Your task to perform on an android device: turn pop-ups off in chrome Image 0: 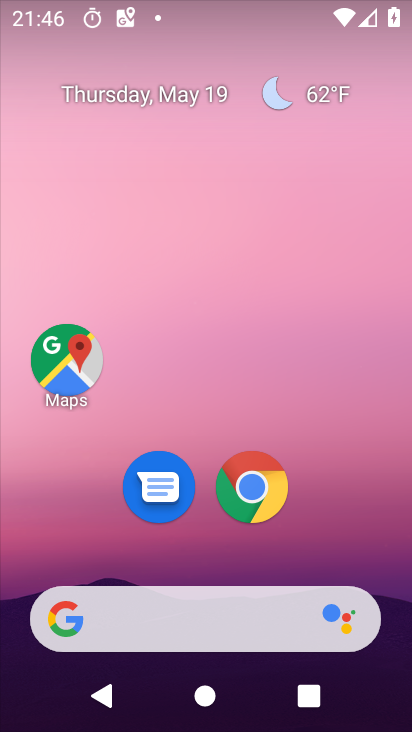
Step 0: click (259, 478)
Your task to perform on an android device: turn pop-ups off in chrome Image 1: 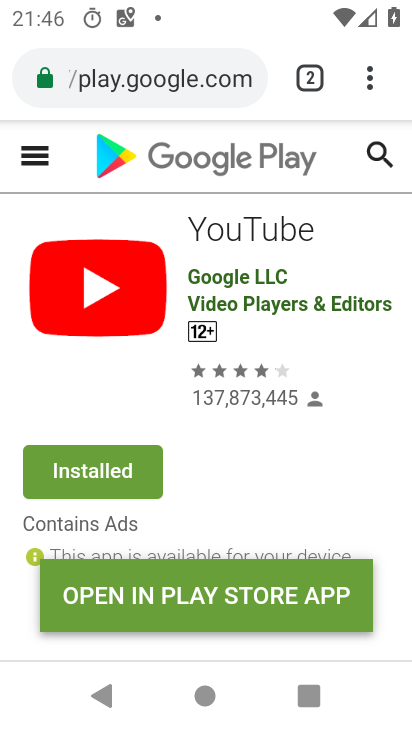
Step 1: click (377, 84)
Your task to perform on an android device: turn pop-ups off in chrome Image 2: 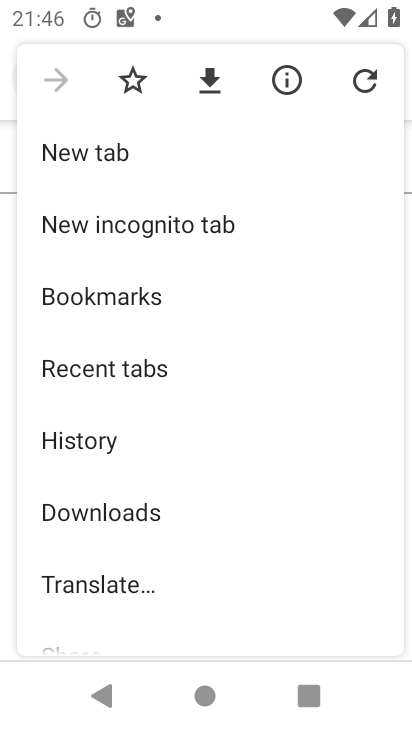
Step 2: drag from (216, 545) to (171, 335)
Your task to perform on an android device: turn pop-ups off in chrome Image 3: 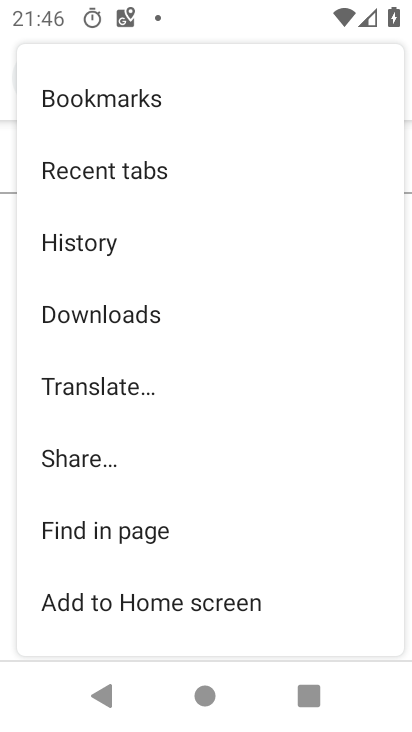
Step 3: click (171, 335)
Your task to perform on an android device: turn pop-ups off in chrome Image 4: 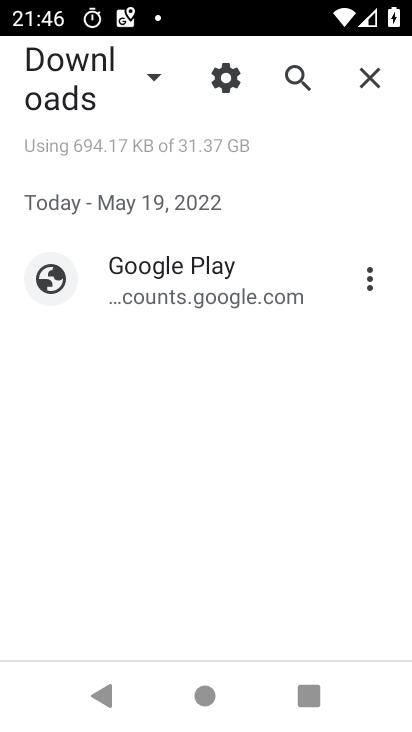
Step 4: press back button
Your task to perform on an android device: turn pop-ups off in chrome Image 5: 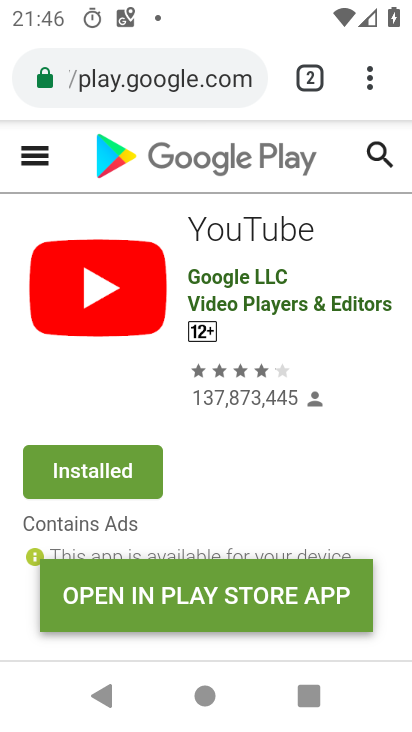
Step 5: click (378, 80)
Your task to perform on an android device: turn pop-ups off in chrome Image 6: 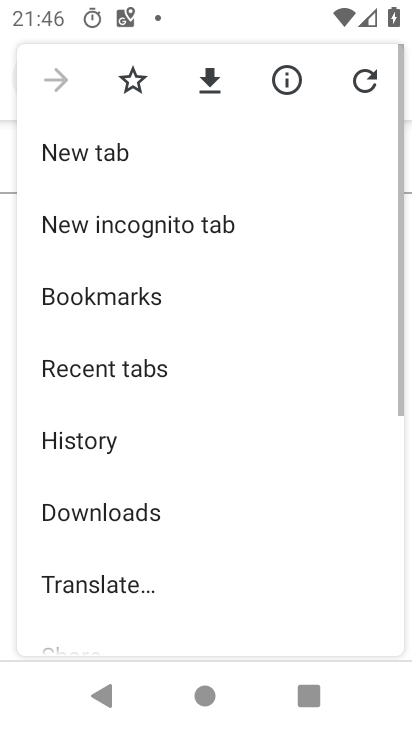
Step 6: drag from (282, 499) to (292, 182)
Your task to perform on an android device: turn pop-ups off in chrome Image 7: 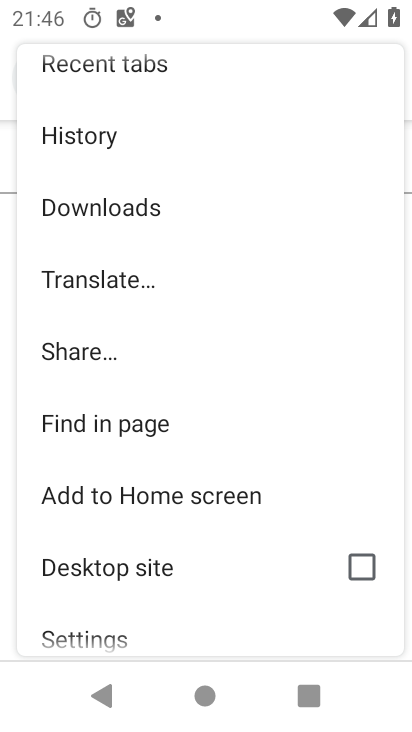
Step 7: click (130, 635)
Your task to perform on an android device: turn pop-ups off in chrome Image 8: 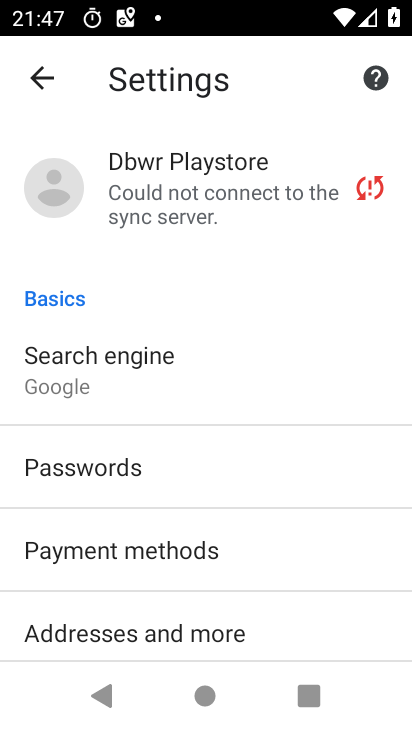
Step 8: drag from (334, 586) to (278, 198)
Your task to perform on an android device: turn pop-ups off in chrome Image 9: 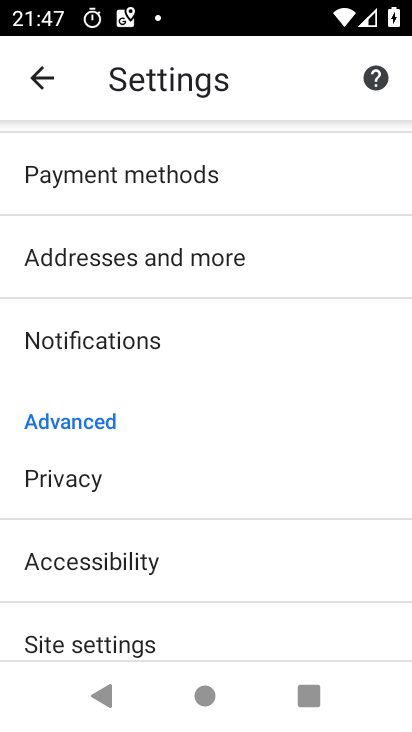
Step 9: click (186, 626)
Your task to perform on an android device: turn pop-ups off in chrome Image 10: 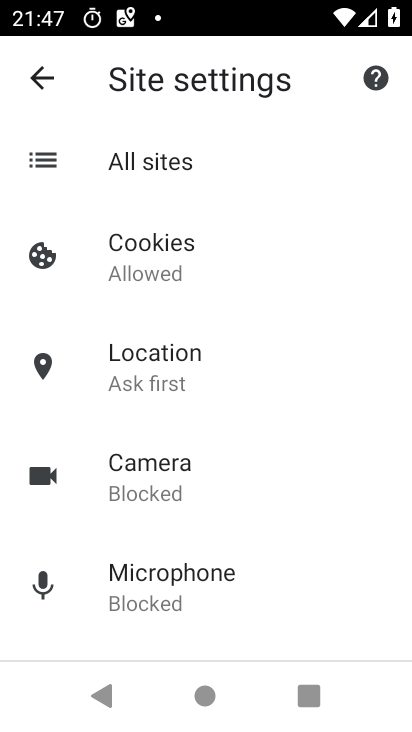
Step 10: drag from (265, 623) to (250, 291)
Your task to perform on an android device: turn pop-ups off in chrome Image 11: 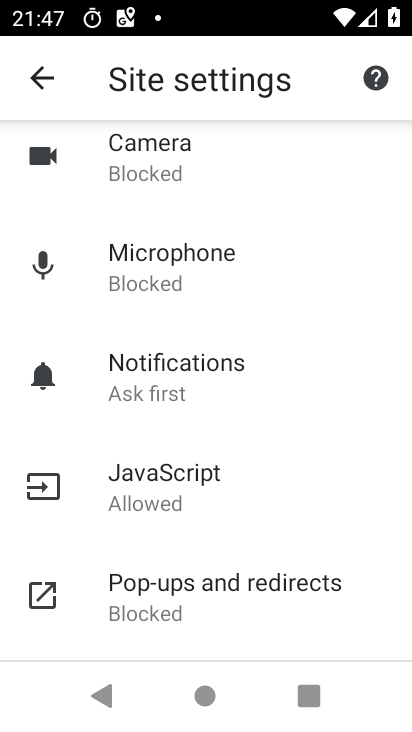
Step 11: click (236, 576)
Your task to perform on an android device: turn pop-ups off in chrome Image 12: 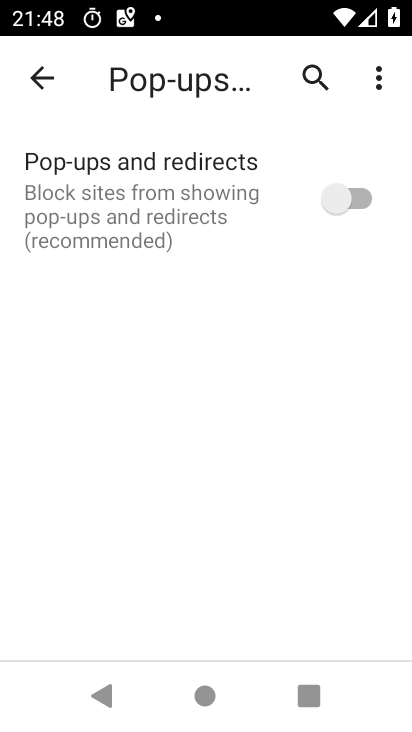
Step 12: task complete